Your task to perform on an android device: Open calendar and show me the fourth week of next month Image 0: 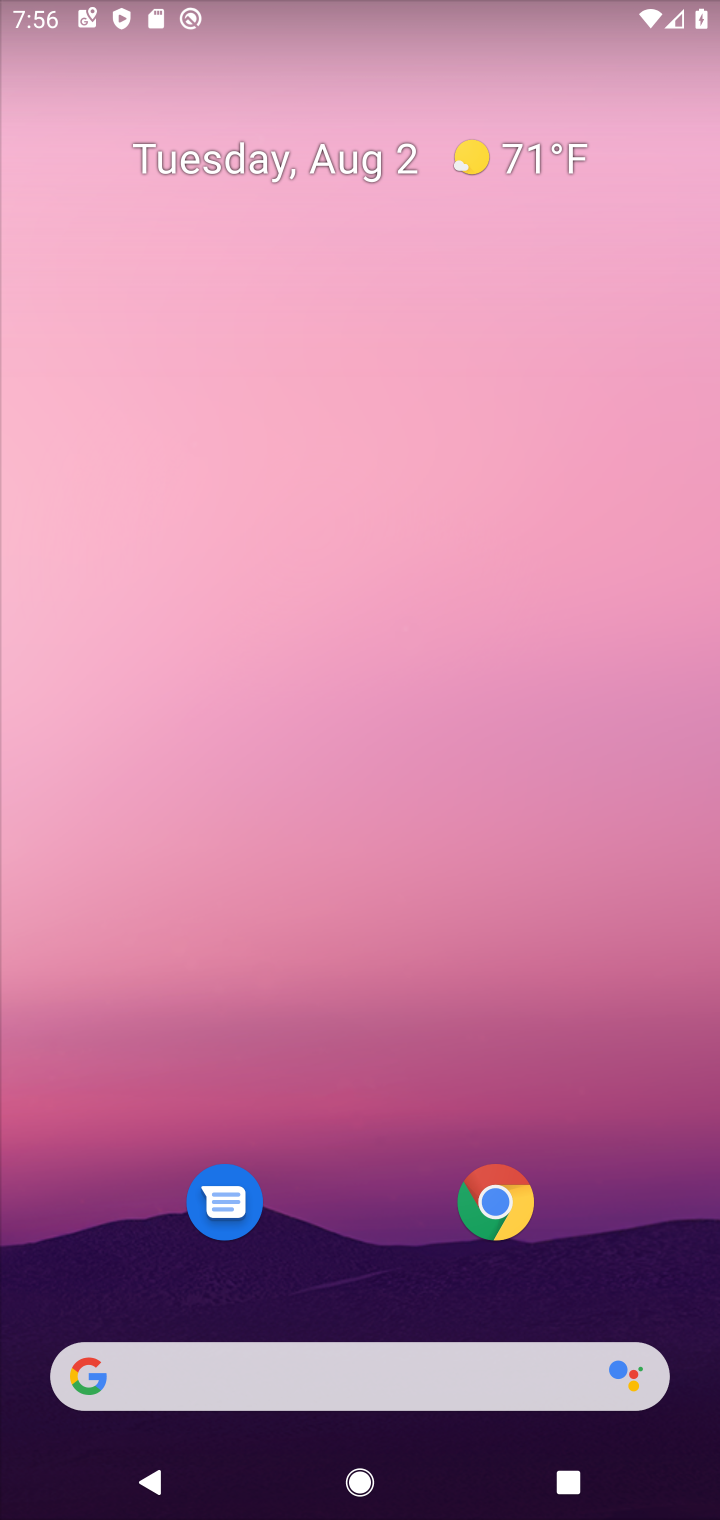
Step 0: drag from (359, 935) to (373, 29)
Your task to perform on an android device: Open calendar and show me the fourth week of next month Image 1: 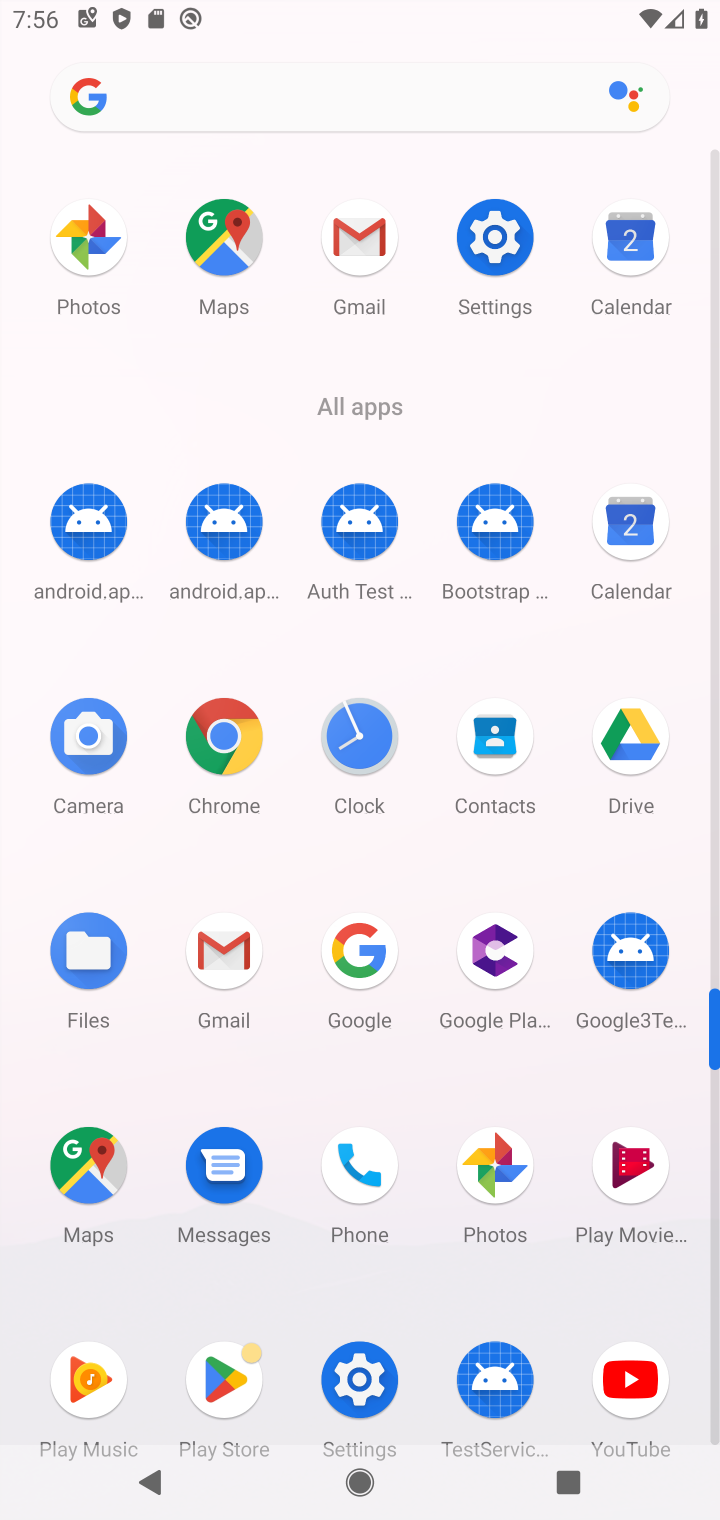
Step 1: click (628, 268)
Your task to perform on an android device: Open calendar and show me the fourth week of next month Image 2: 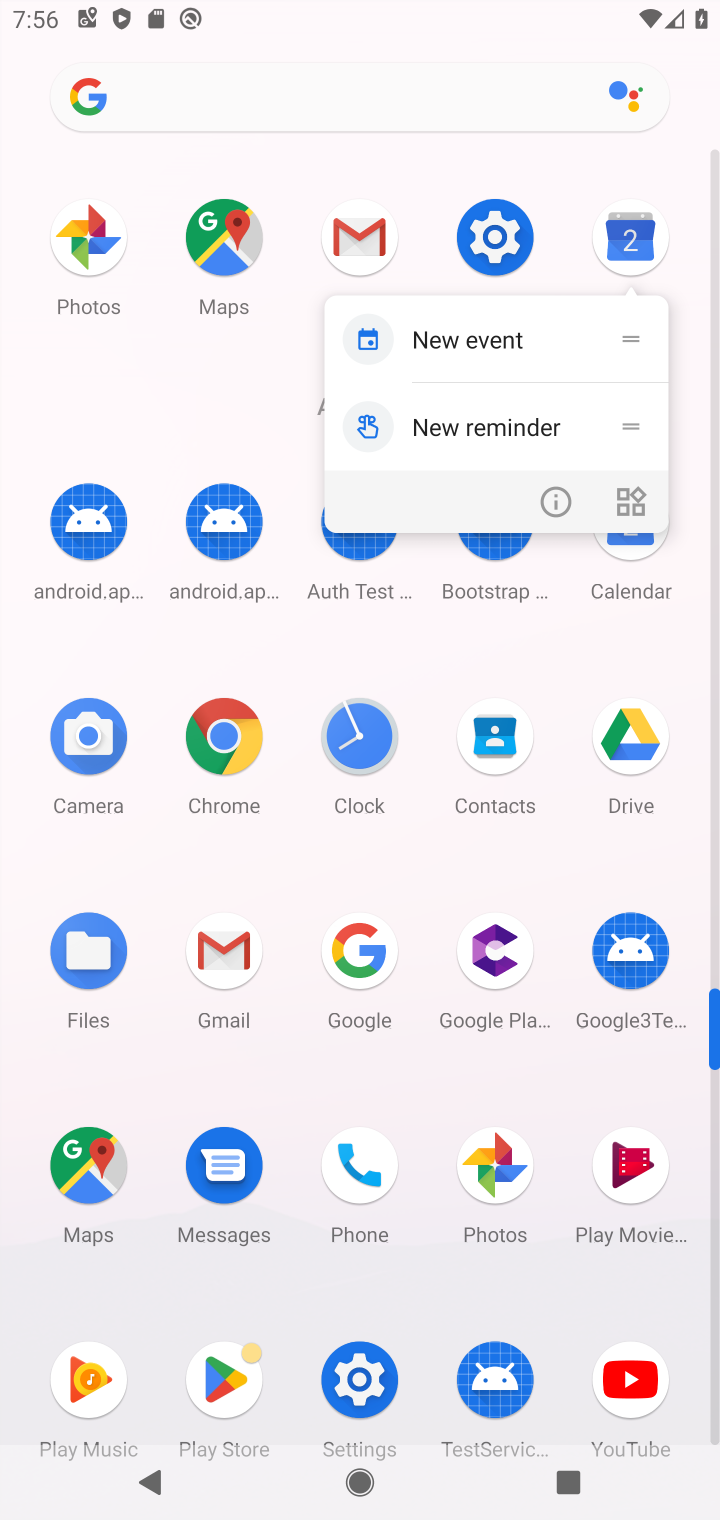
Step 2: click (628, 244)
Your task to perform on an android device: Open calendar and show me the fourth week of next month Image 3: 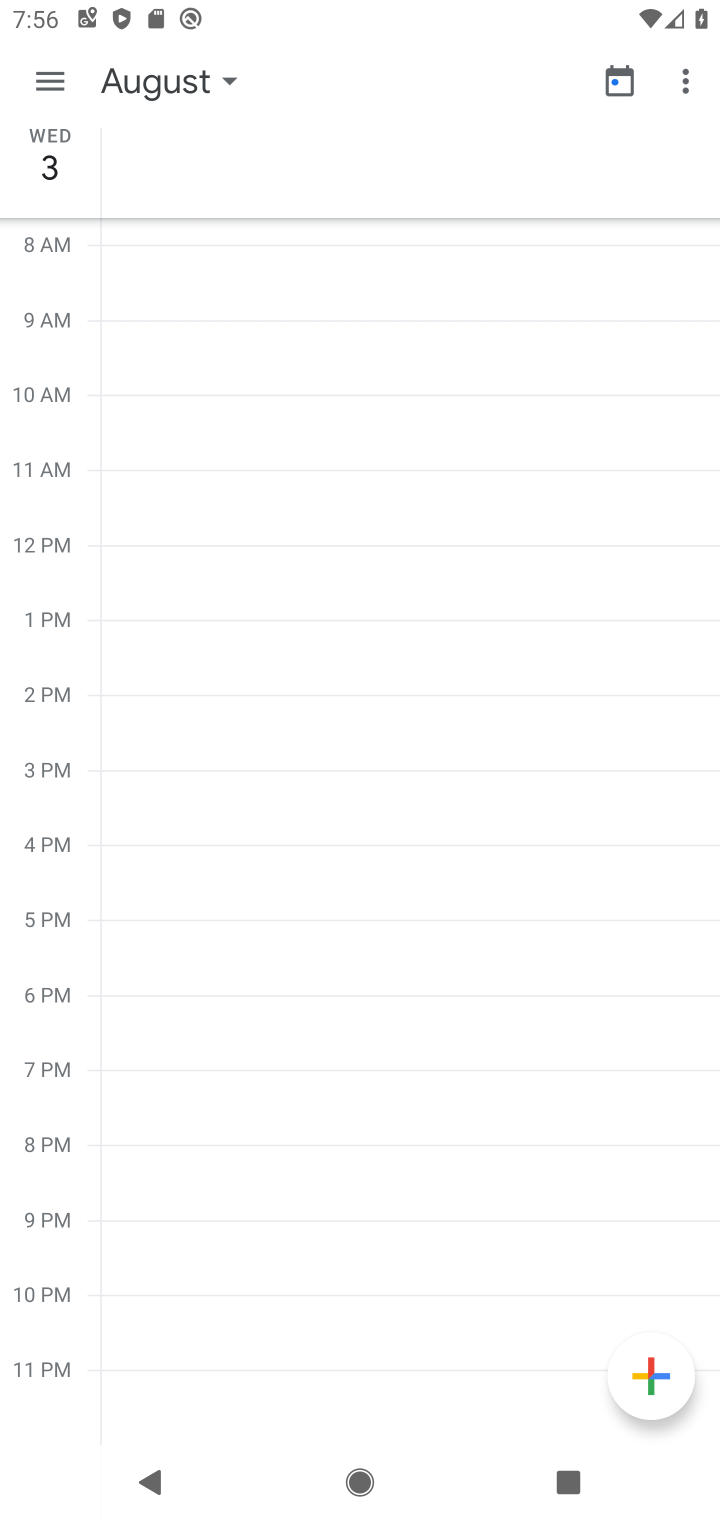
Step 3: click (232, 93)
Your task to perform on an android device: Open calendar and show me the fourth week of next month Image 4: 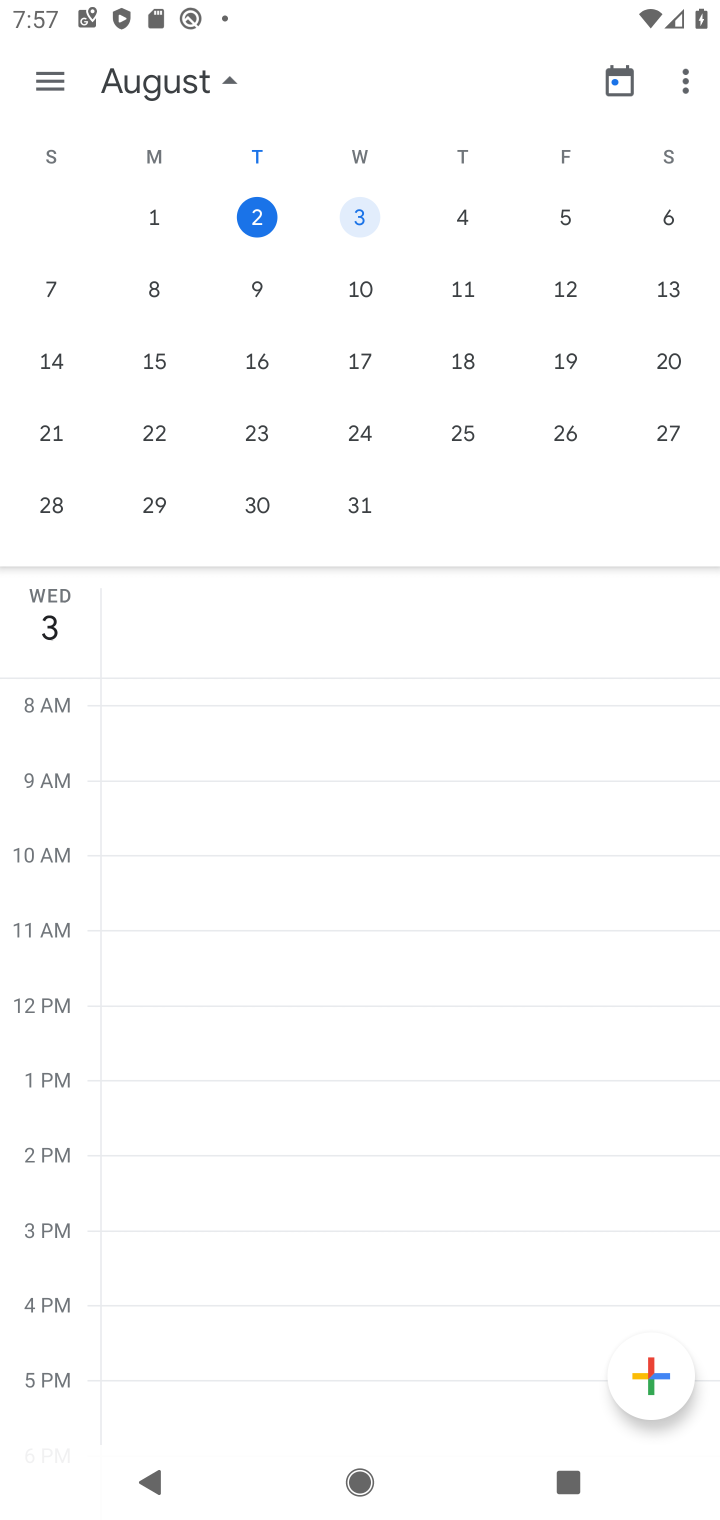
Step 4: click (233, 89)
Your task to perform on an android device: Open calendar and show me the fourth week of next month Image 5: 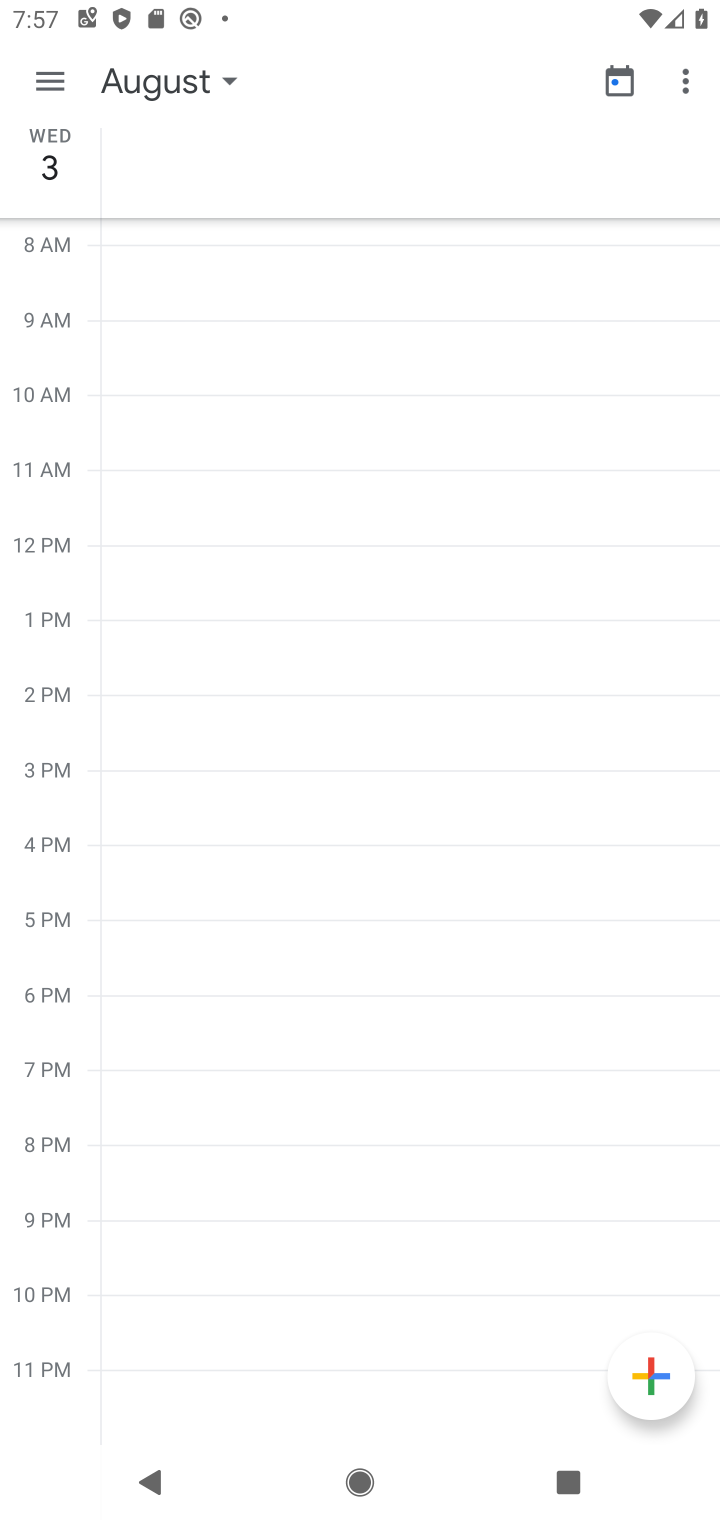
Step 5: click (233, 87)
Your task to perform on an android device: Open calendar and show me the fourth week of next month Image 6: 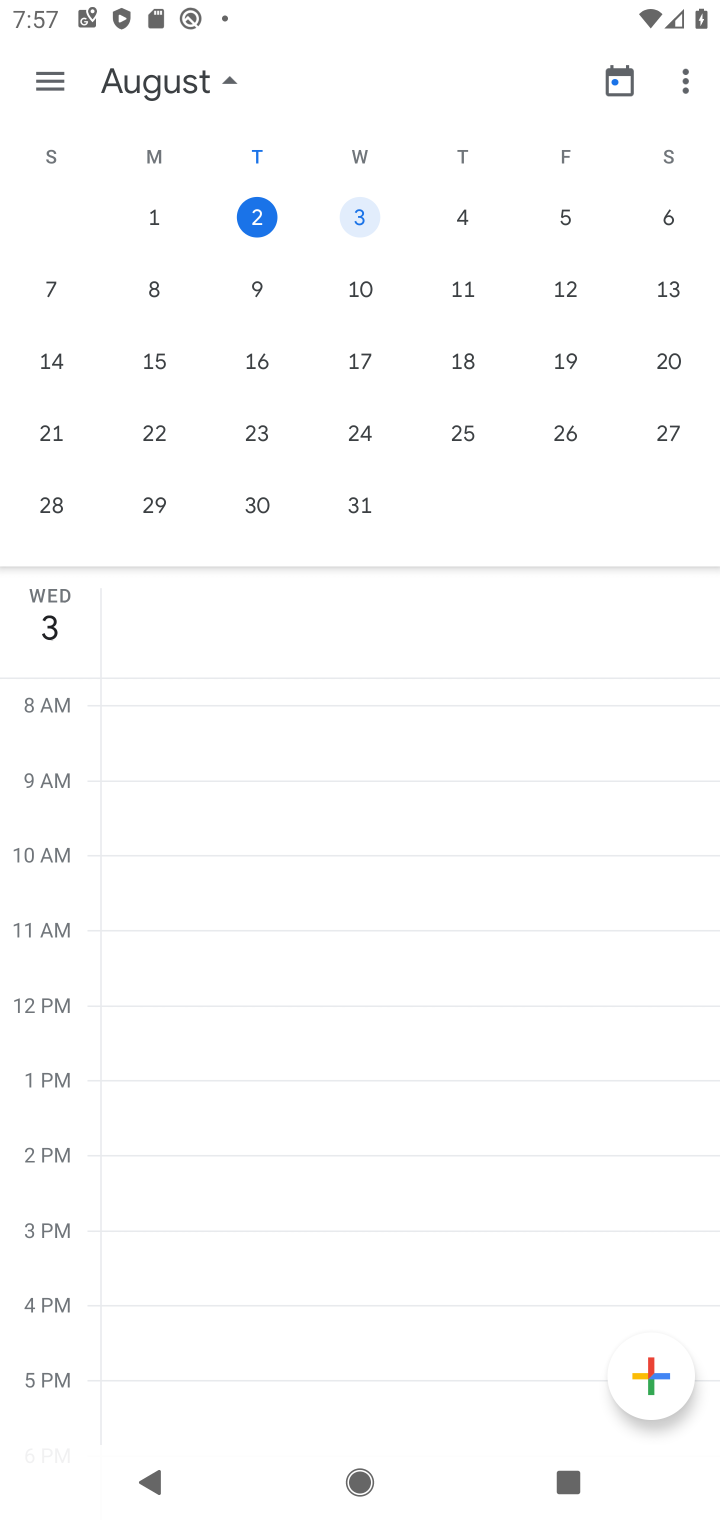
Step 6: drag from (550, 282) to (42, 369)
Your task to perform on an android device: Open calendar and show me the fourth week of next month Image 7: 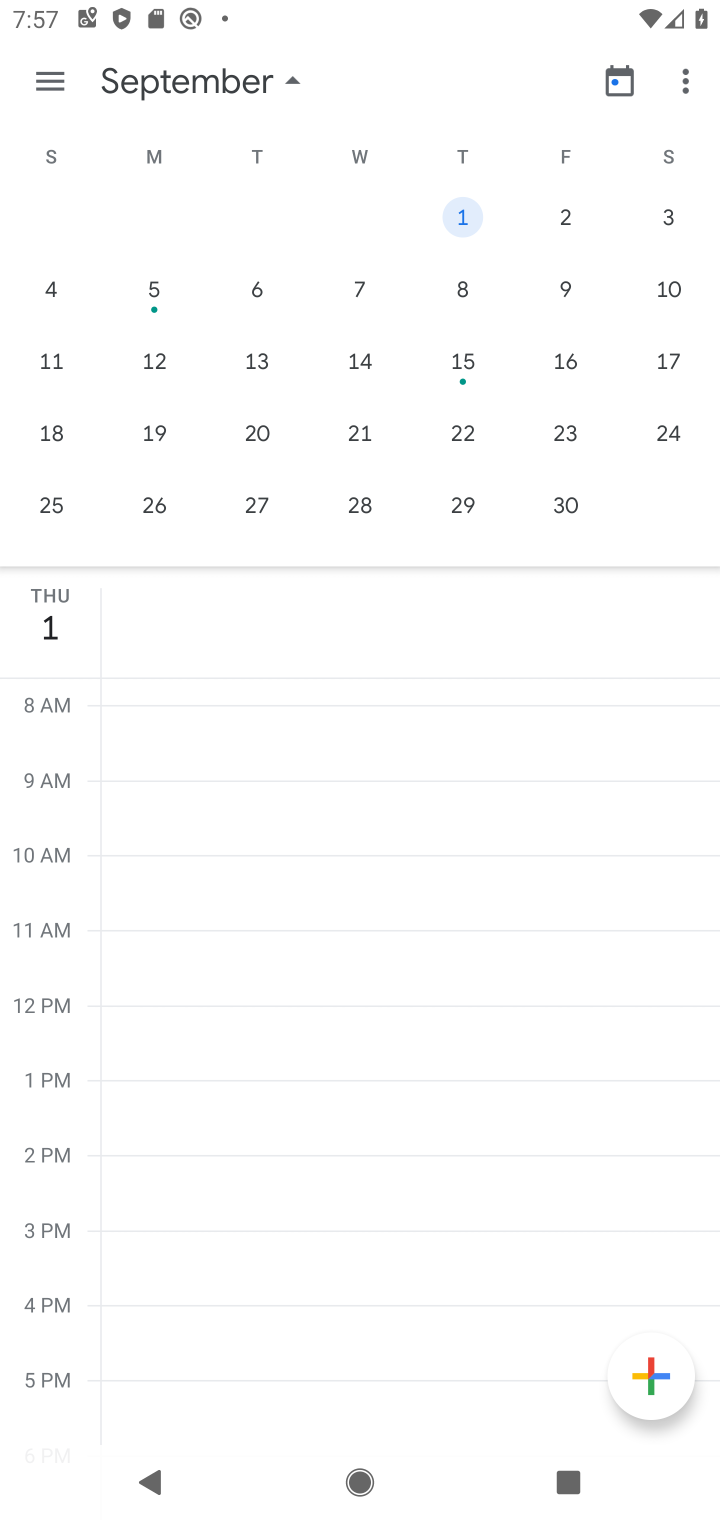
Step 7: click (57, 71)
Your task to perform on an android device: Open calendar and show me the fourth week of next month Image 8: 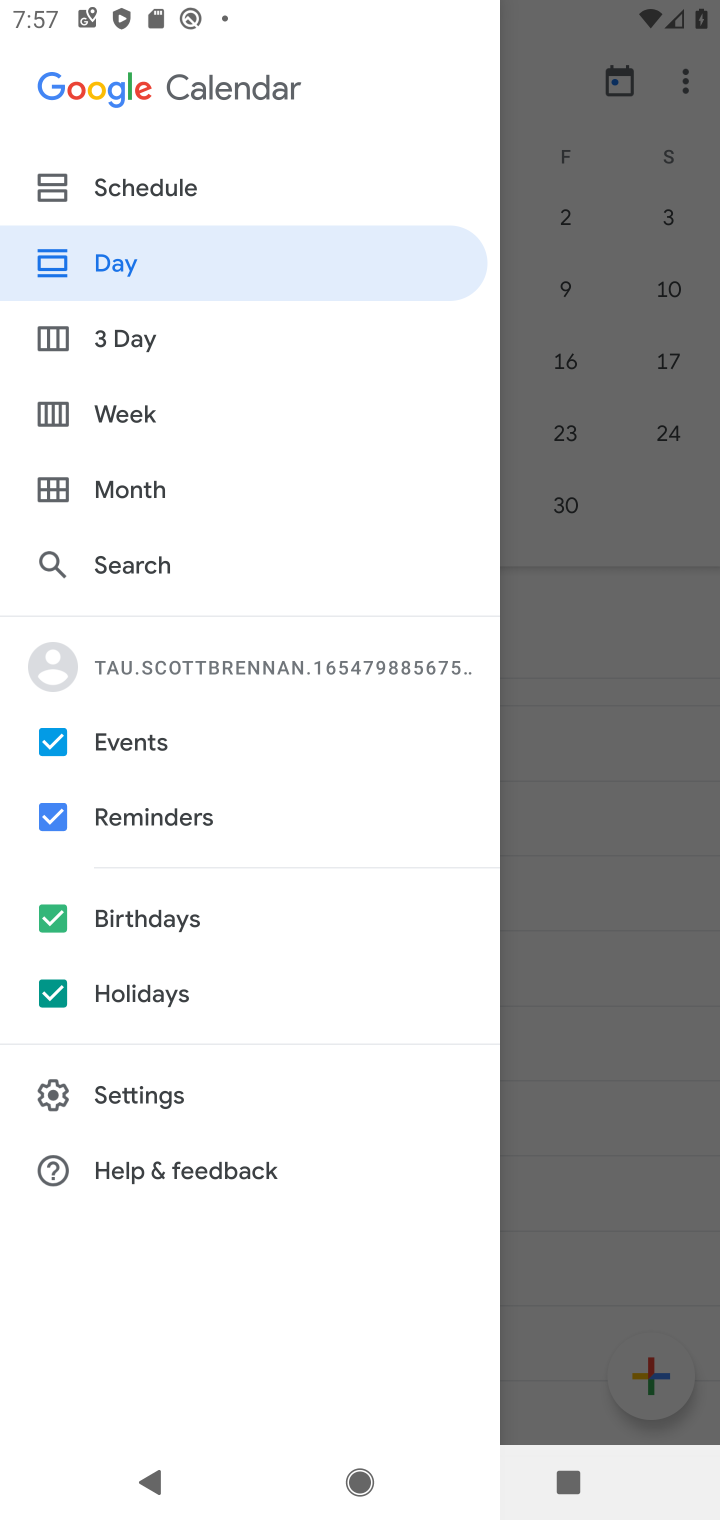
Step 8: click (122, 427)
Your task to perform on an android device: Open calendar and show me the fourth week of next month Image 9: 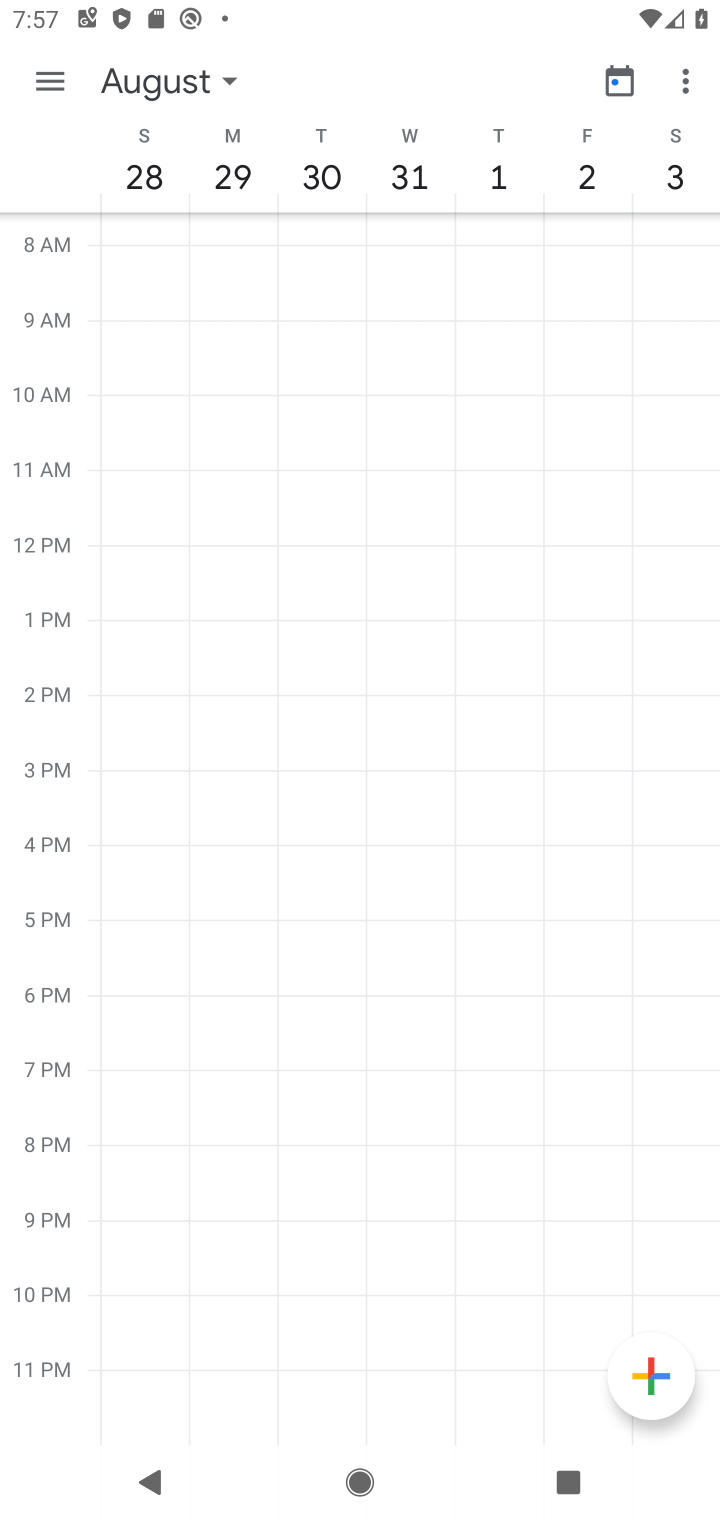
Step 9: task complete